Your task to perform on an android device: What's the weather going to be tomorrow? Image 0: 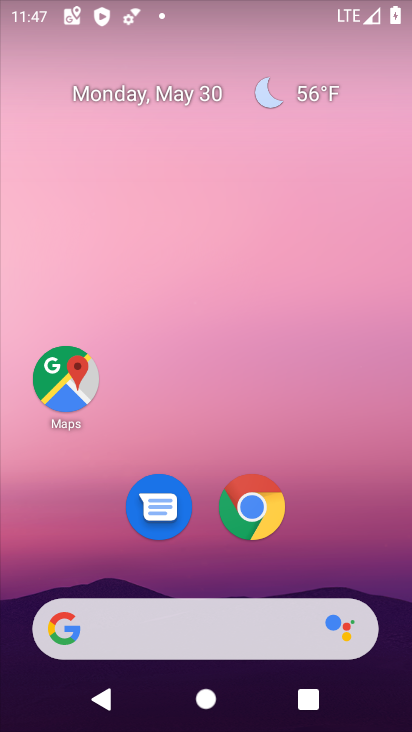
Step 0: press home button
Your task to perform on an android device: What's the weather going to be tomorrow? Image 1: 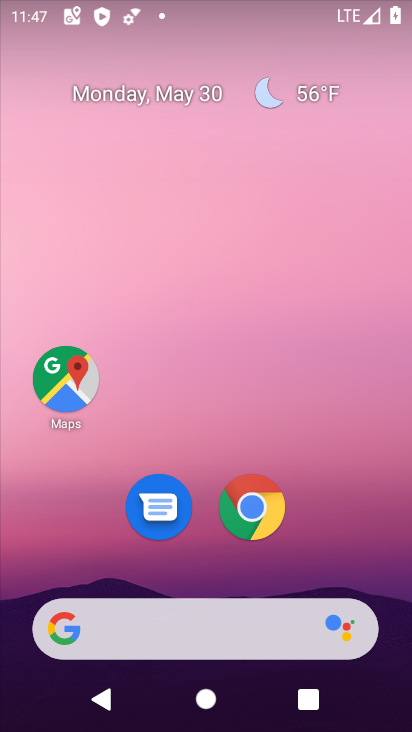
Step 1: click (213, 619)
Your task to perform on an android device: What's the weather going to be tomorrow? Image 2: 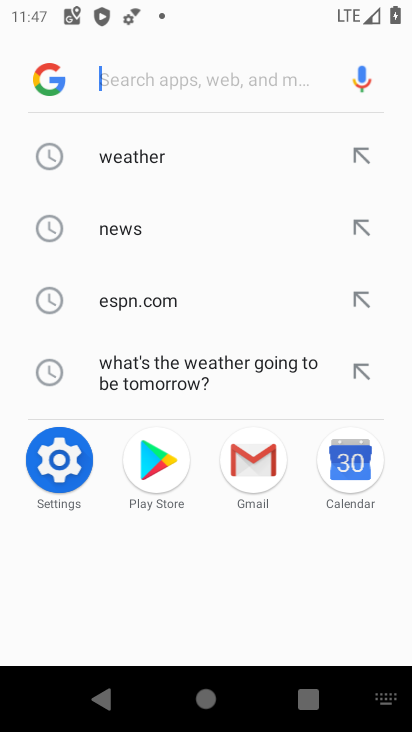
Step 2: click (225, 363)
Your task to perform on an android device: What's the weather going to be tomorrow? Image 3: 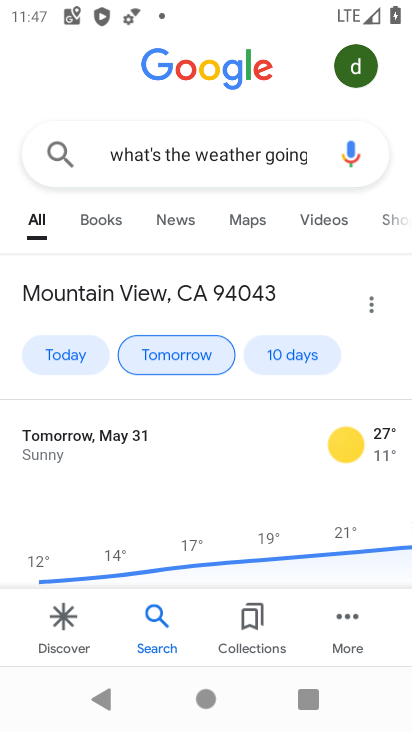
Step 3: task complete